Your task to perform on an android device: Search for pizza restaurants on Maps Image 0: 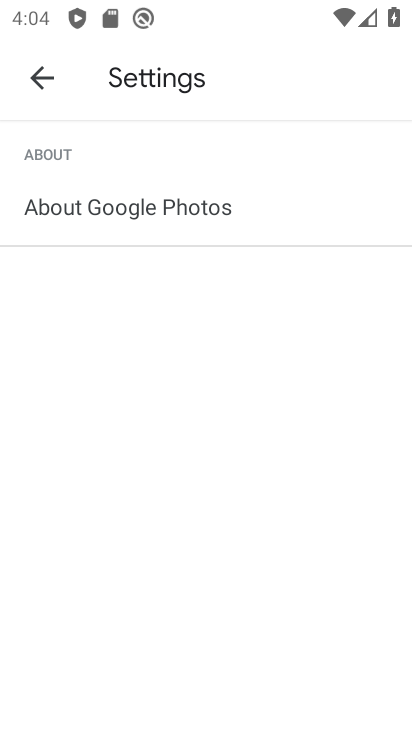
Step 0: press home button
Your task to perform on an android device: Search for pizza restaurants on Maps Image 1: 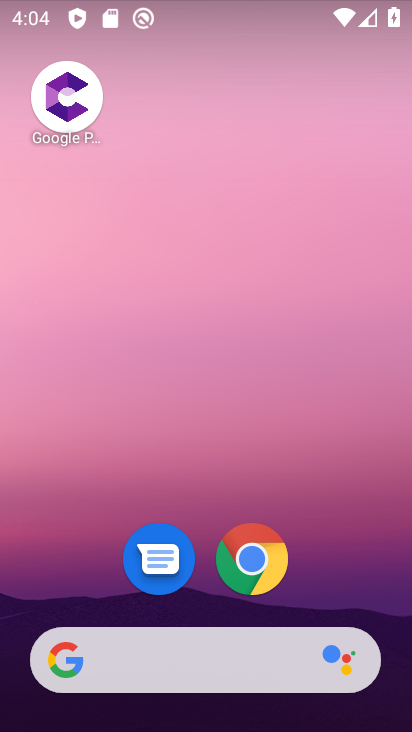
Step 1: drag from (341, 556) to (335, 0)
Your task to perform on an android device: Search for pizza restaurants on Maps Image 2: 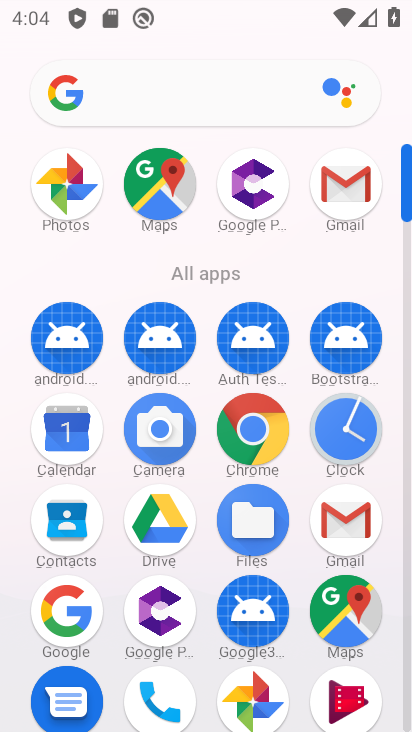
Step 2: click (153, 190)
Your task to perform on an android device: Search for pizza restaurants on Maps Image 3: 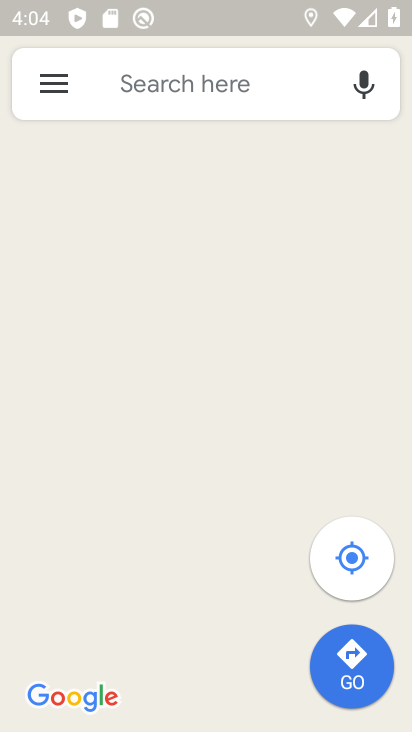
Step 3: click (151, 92)
Your task to perform on an android device: Search for pizza restaurants on Maps Image 4: 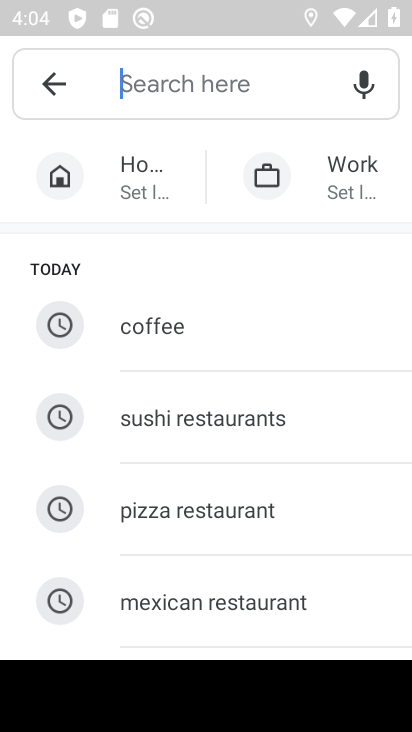
Step 4: type "pizza restaurants"
Your task to perform on an android device: Search for pizza restaurants on Maps Image 5: 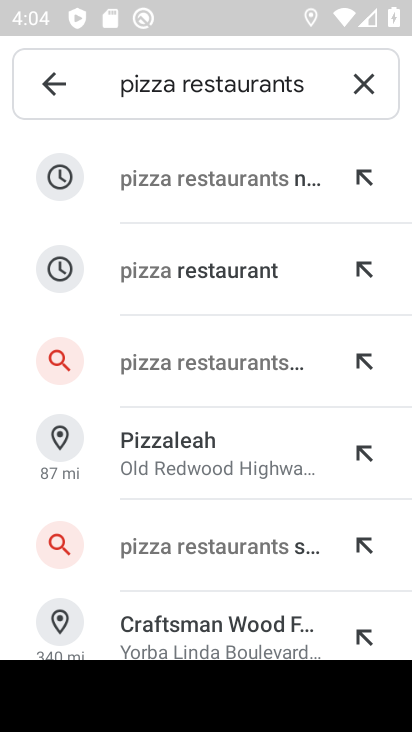
Step 5: click (189, 260)
Your task to perform on an android device: Search for pizza restaurants on Maps Image 6: 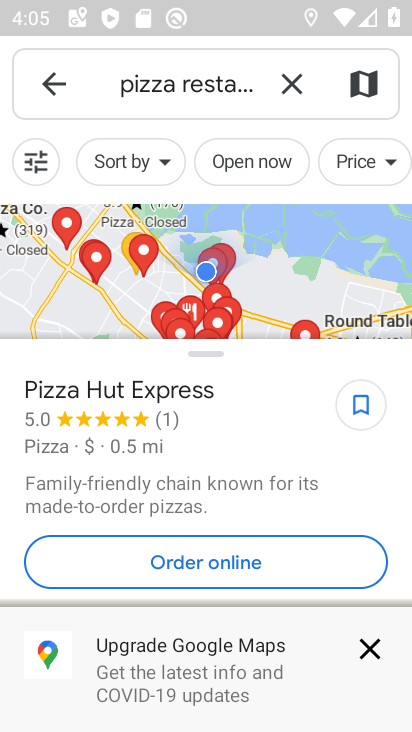
Step 6: task complete